Your task to perform on an android device: Show me popular games on the Play Store Image 0: 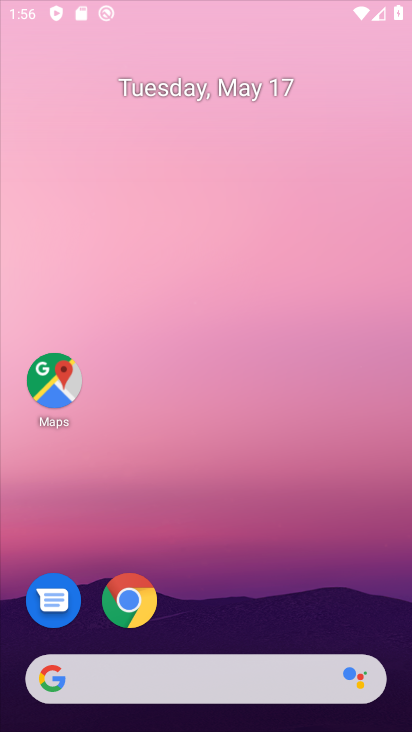
Step 0: drag from (302, 697) to (133, 150)
Your task to perform on an android device: Show me popular games on the Play Store Image 1: 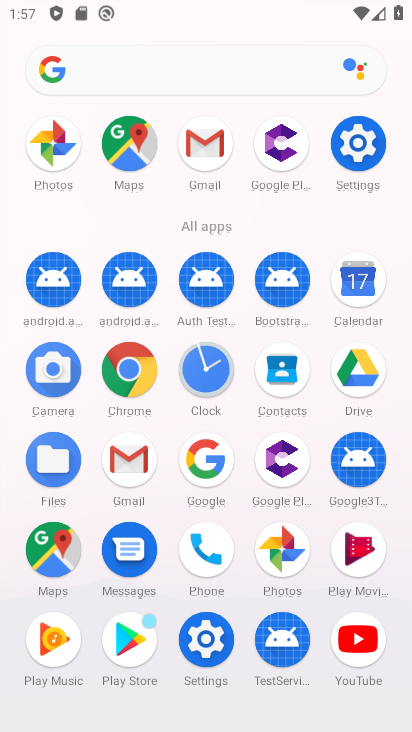
Step 1: click (130, 645)
Your task to perform on an android device: Show me popular games on the Play Store Image 2: 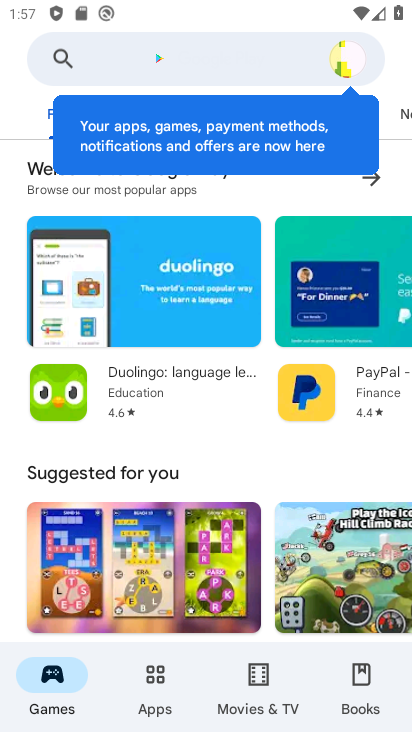
Step 2: click (110, 38)
Your task to perform on an android device: Show me popular games on the Play Store Image 3: 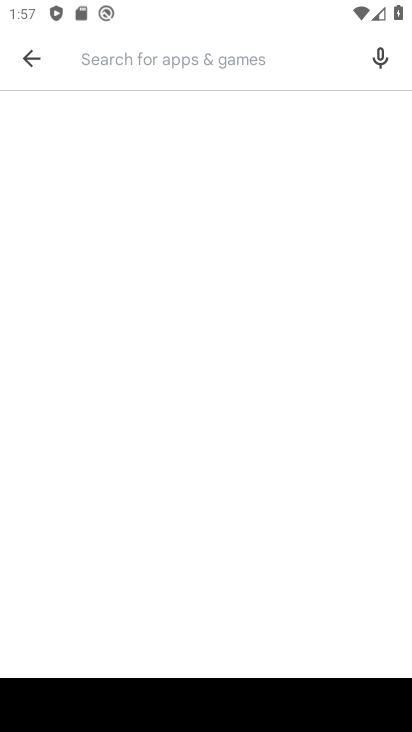
Step 3: type "popul"
Your task to perform on an android device: Show me popular games on the Play Store Image 4: 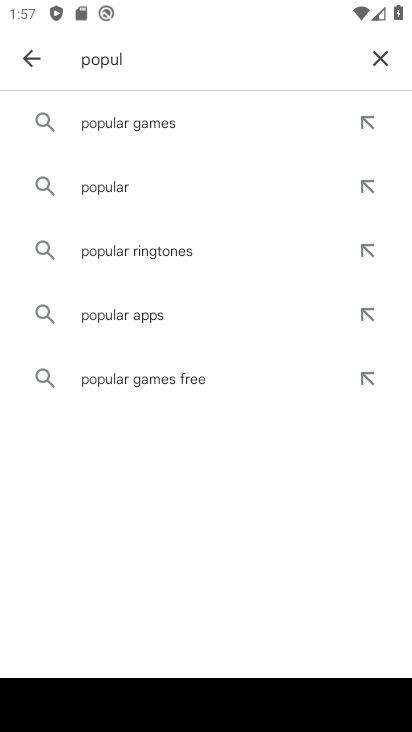
Step 4: type "popular games"
Your task to perform on an android device: Show me popular games on the Play Store Image 5: 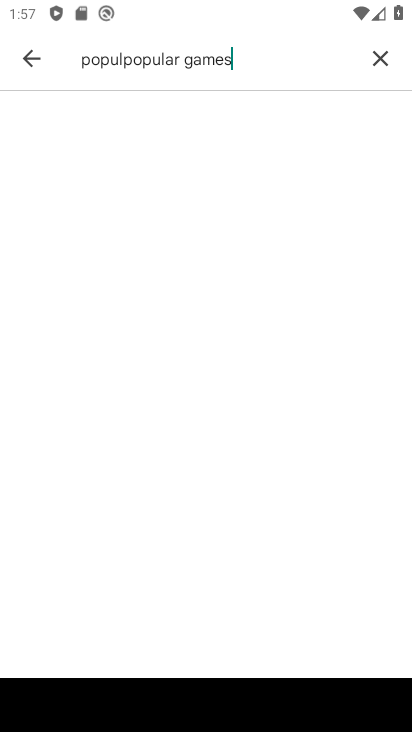
Step 5: click (177, 58)
Your task to perform on an android device: Show me popular games on the Play Store Image 6: 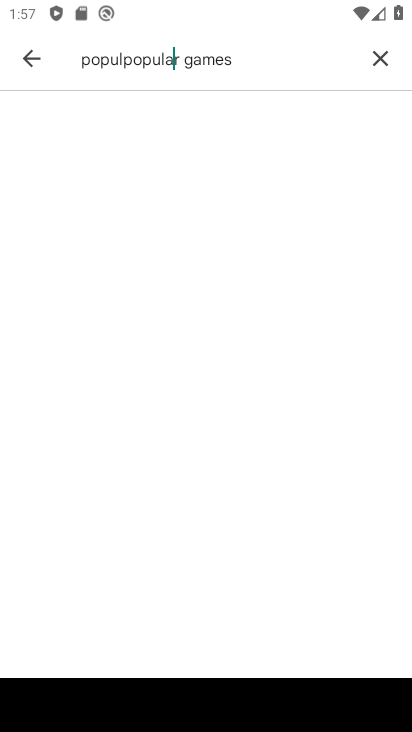
Step 6: click (178, 55)
Your task to perform on an android device: Show me popular games on the Play Store Image 7: 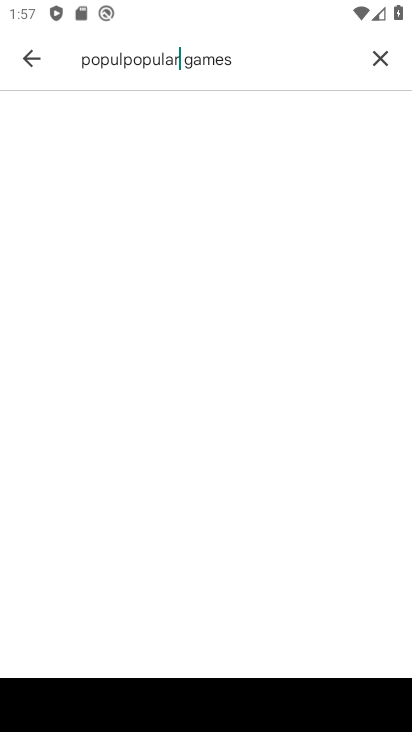
Step 7: click (376, 60)
Your task to perform on an android device: Show me popular games on the Play Store Image 8: 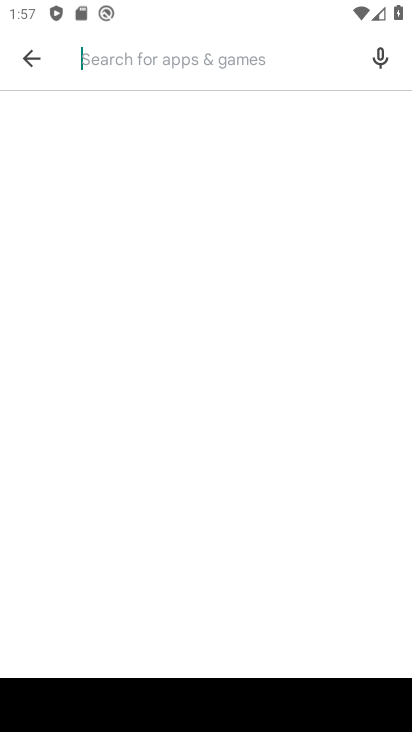
Step 8: click (376, 60)
Your task to perform on an android device: Show me popular games on the Play Store Image 9: 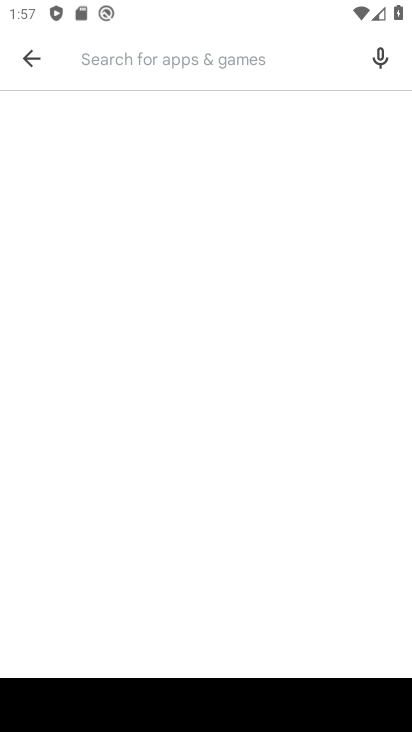
Step 9: click (376, 60)
Your task to perform on an android device: Show me popular games on the Play Store Image 10: 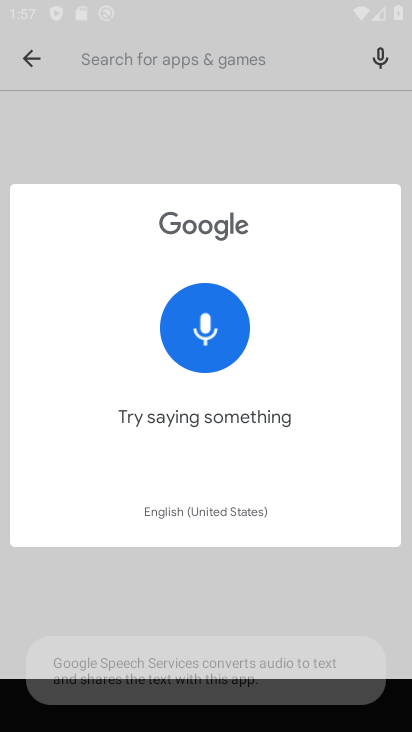
Step 10: click (376, 60)
Your task to perform on an android device: Show me popular games on the Play Store Image 11: 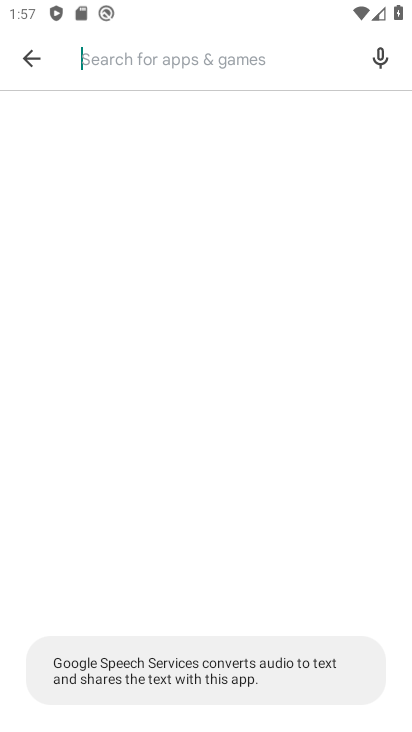
Step 11: press back button
Your task to perform on an android device: Show me popular games on the Play Store Image 12: 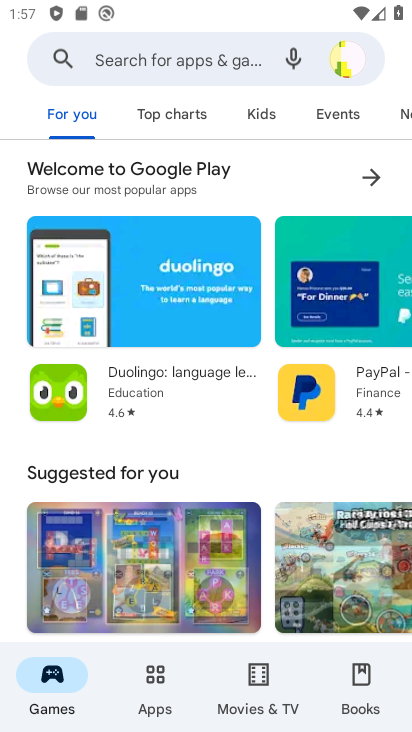
Step 12: click (98, 65)
Your task to perform on an android device: Show me popular games on the Play Store Image 13: 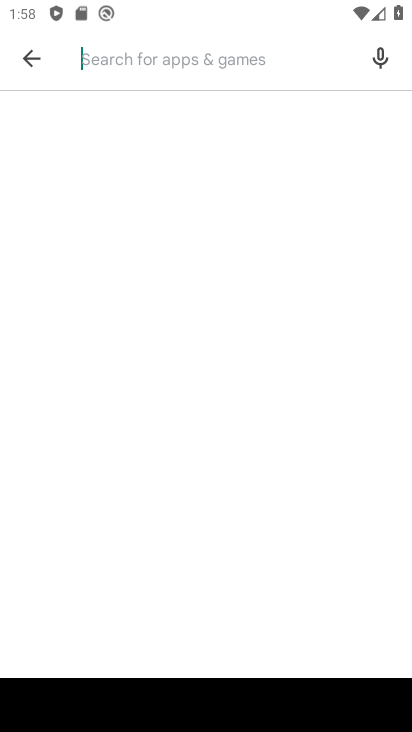
Step 13: type "popular games"
Your task to perform on an android device: Show me popular games on the Play Store Image 14: 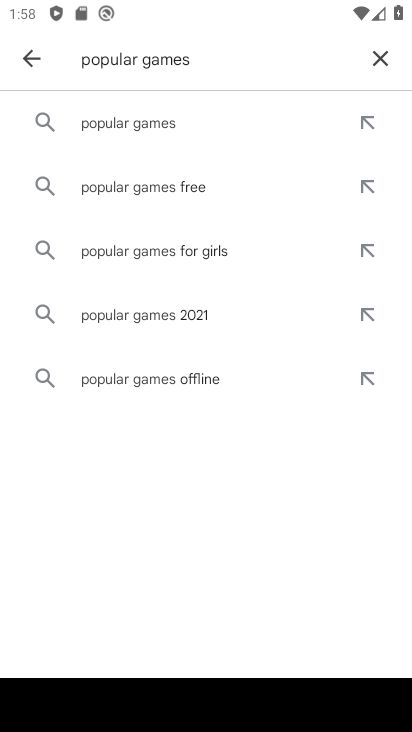
Step 14: click (129, 116)
Your task to perform on an android device: Show me popular games on the Play Store Image 15: 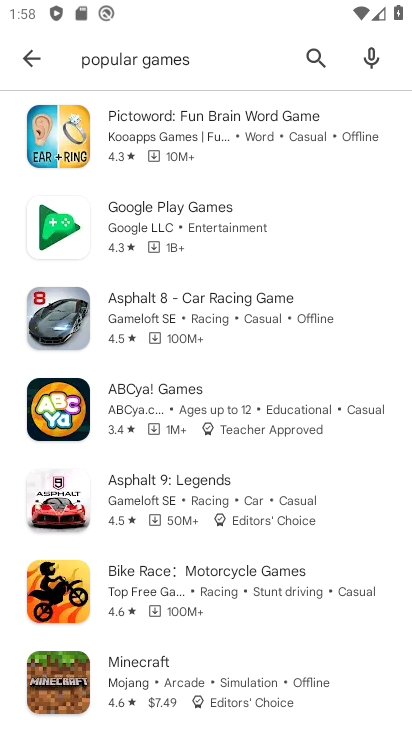
Step 15: task complete